Your task to perform on an android device: Go to Yahoo.com Image 0: 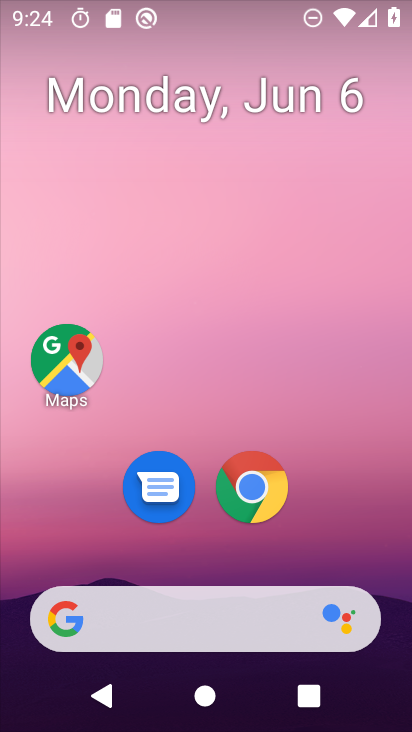
Step 0: drag from (403, 619) to (288, 29)
Your task to perform on an android device: Go to Yahoo.com Image 1: 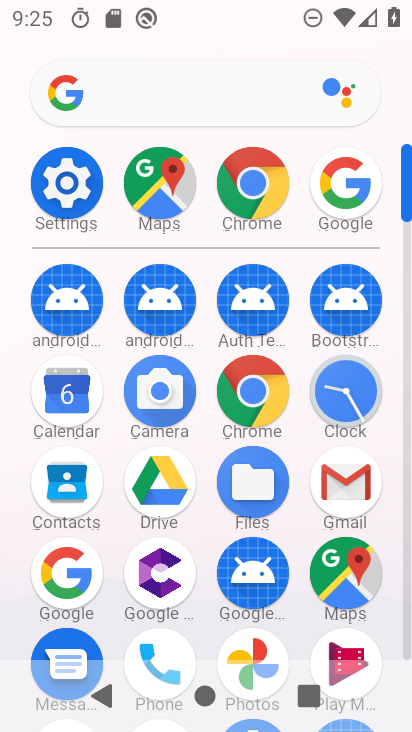
Step 1: click (73, 569)
Your task to perform on an android device: Go to Yahoo.com Image 2: 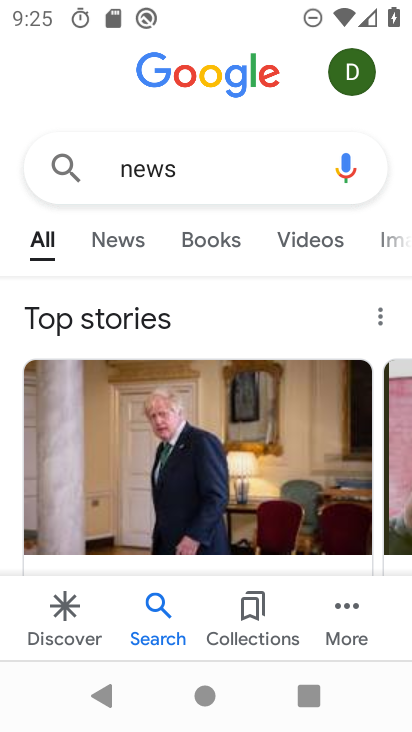
Step 2: press back button
Your task to perform on an android device: Go to Yahoo.com Image 3: 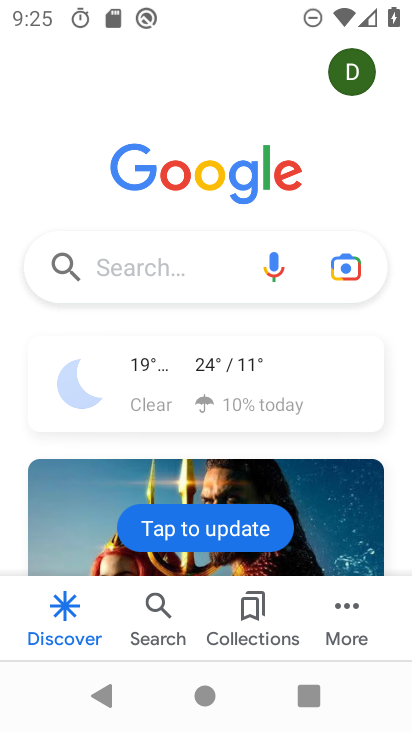
Step 3: click (187, 282)
Your task to perform on an android device: Go to Yahoo.com Image 4: 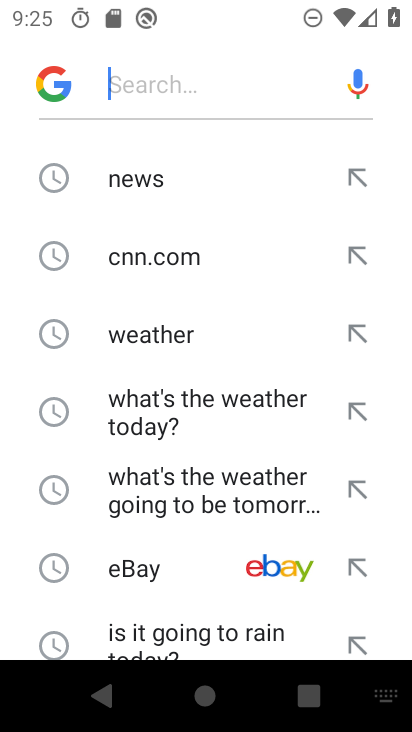
Step 4: drag from (149, 539) to (206, 114)
Your task to perform on an android device: Go to Yahoo.com Image 5: 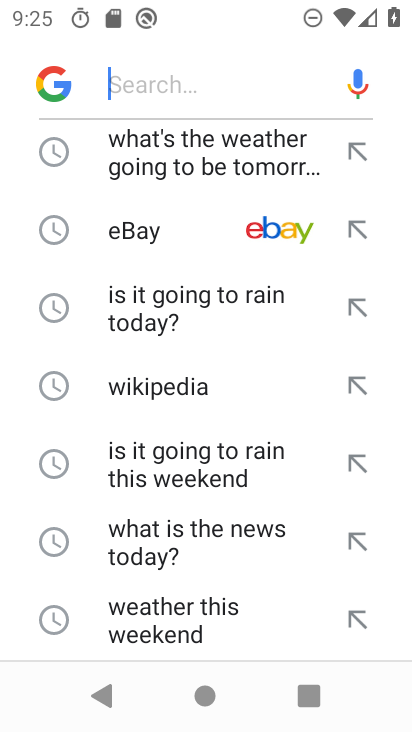
Step 5: drag from (149, 544) to (222, 139)
Your task to perform on an android device: Go to Yahoo.com Image 6: 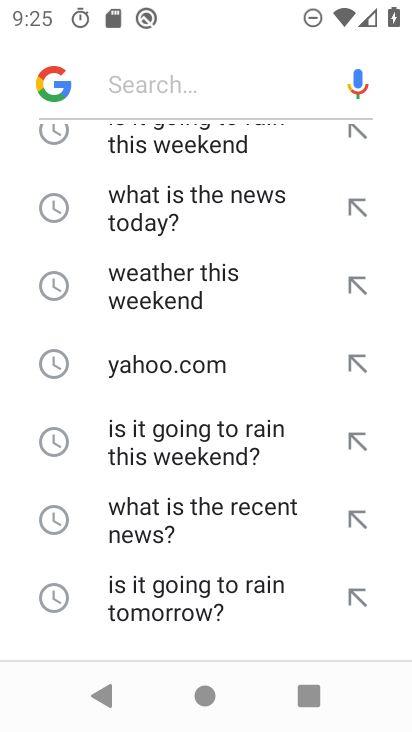
Step 6: drag from (187, 555) to (254, 116)
Your task to perform on an android device: Go to Yahoo.com Image 7: 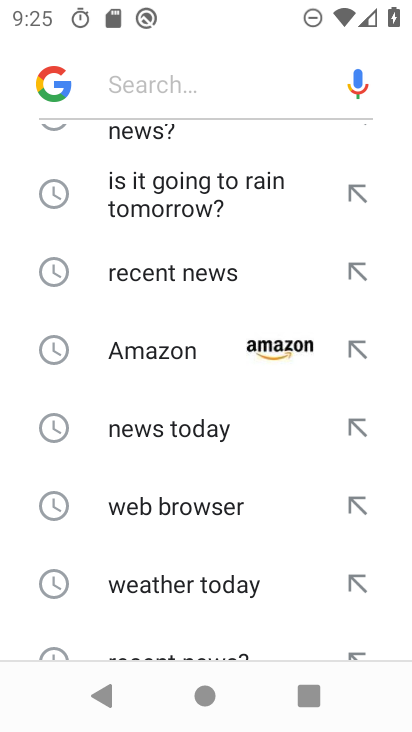
Step 7: drag from (189, 177) to (172, 560)
Your task to perform on an android device: Go to Yahoo.com Image 8: 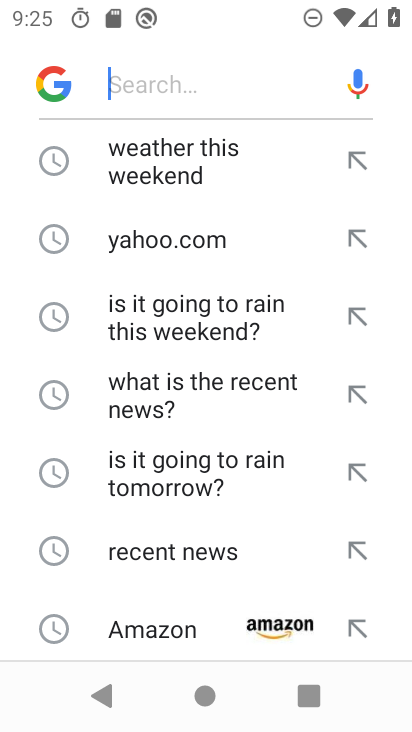
Step 8: click (150, 255)
Your task to perform on an android device: Go to Yahoo.com Image 9: 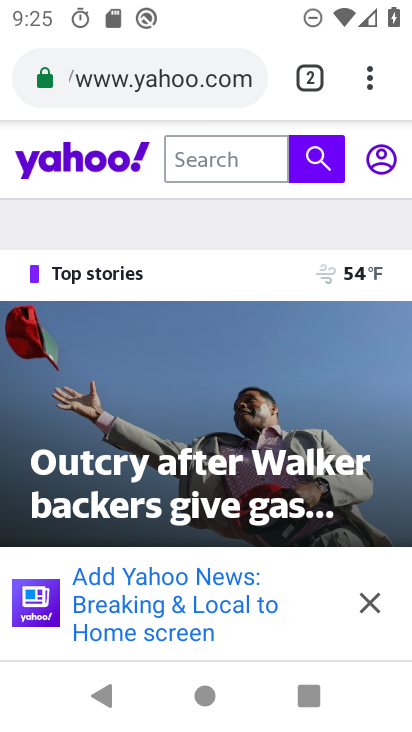
Step 9: task complete